Your task to perform on an android device: check android version Image 0: 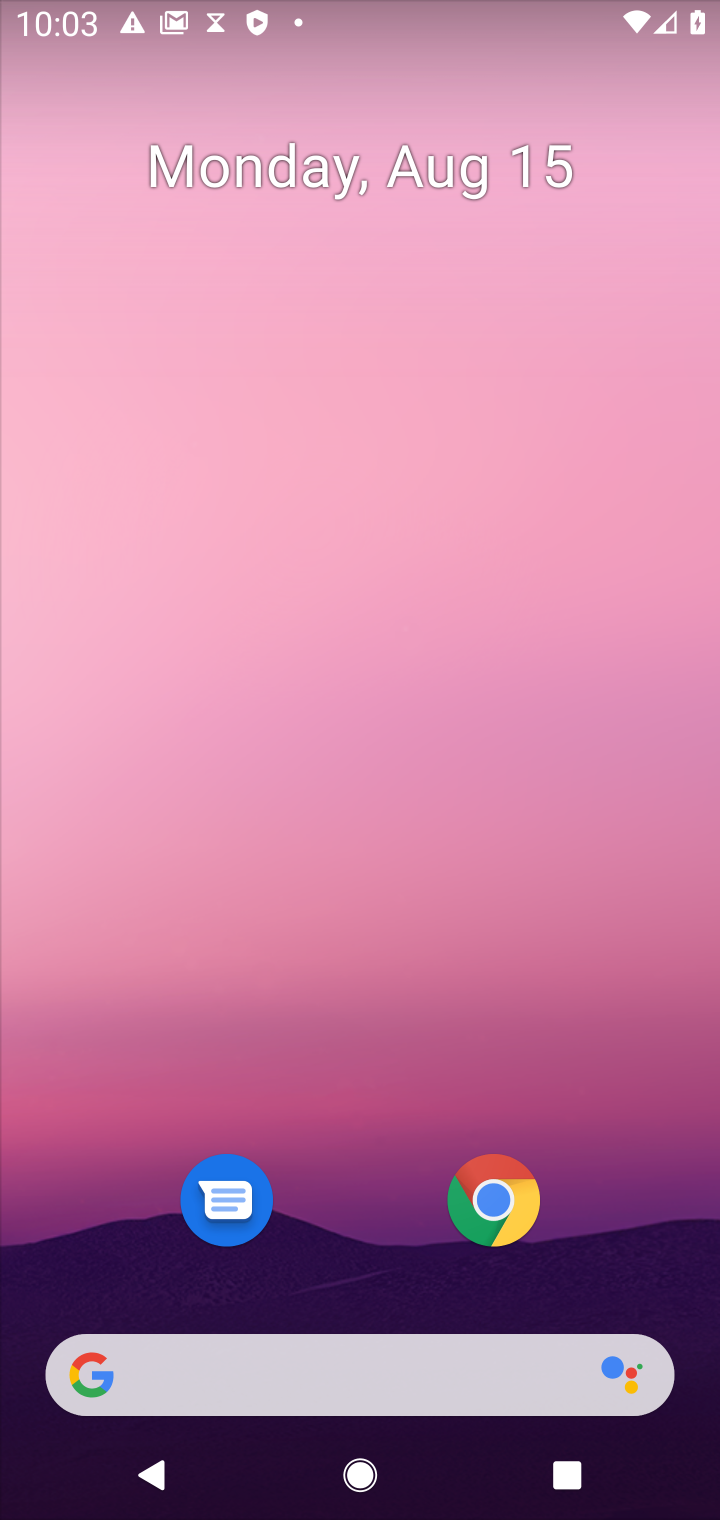
Step 0: drag from (370, 1138) to (433, 273)
Your task to perform on an android device: check android version Image 1: 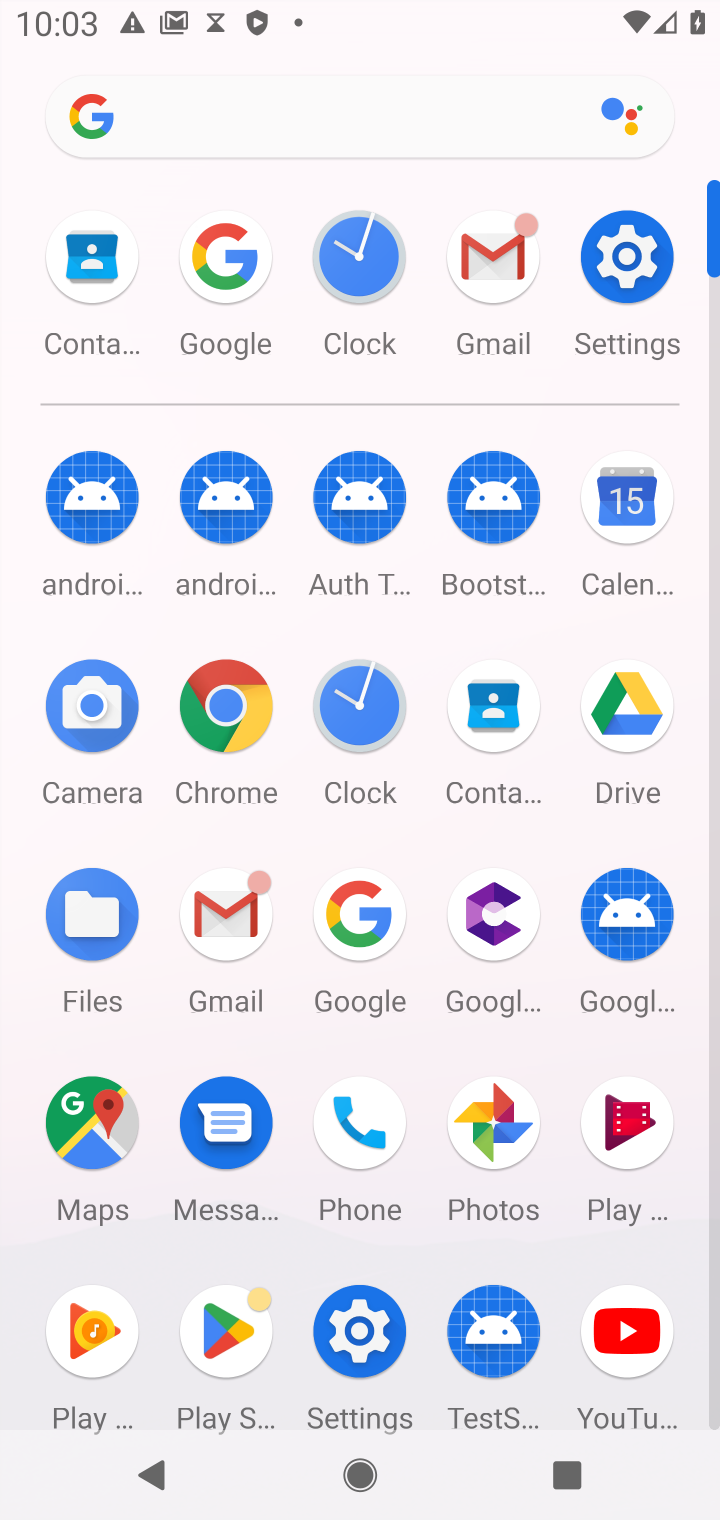
Step 1: click (623, 280)
Your task to perform on an android device: check android version Image 2: 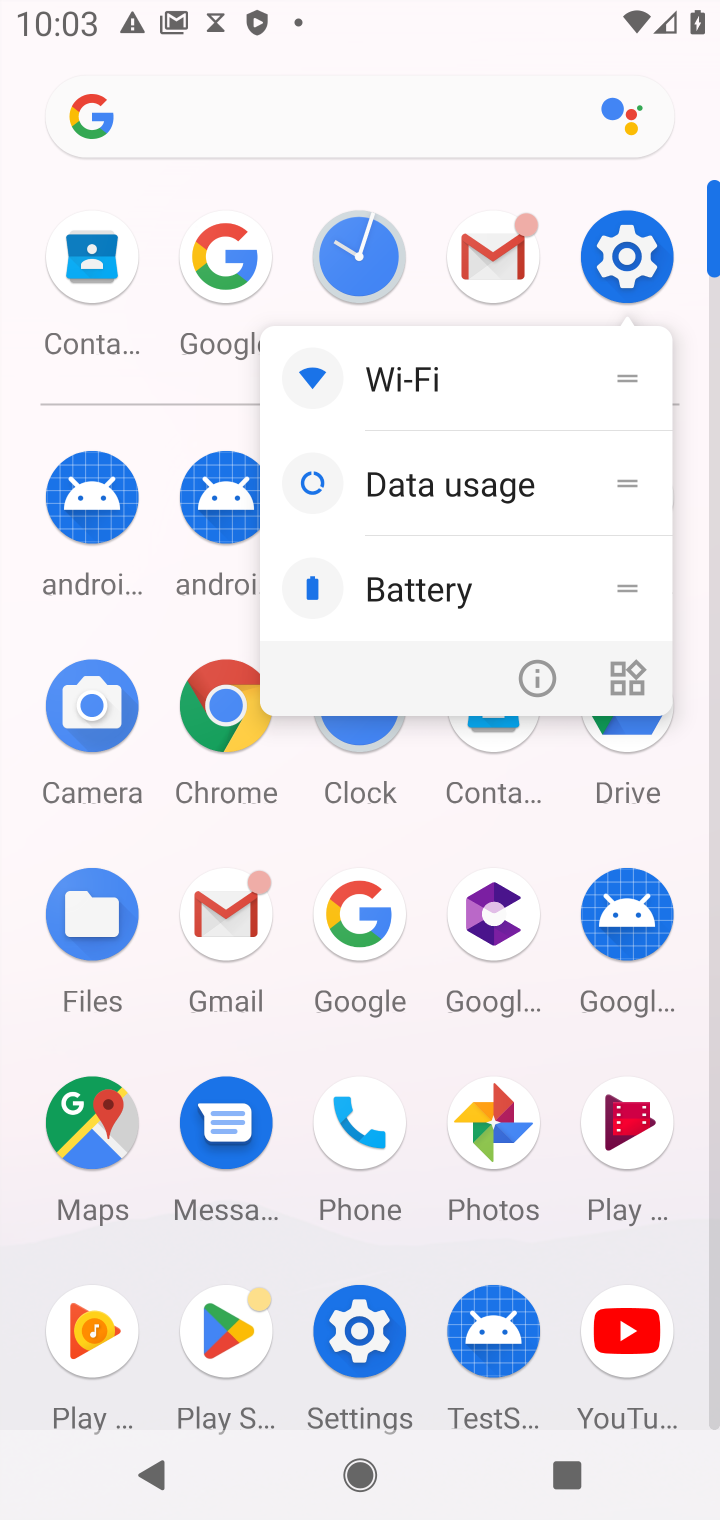
Step 2: click (623, 280)
Your task to perform on an android device: check android version Image 3: 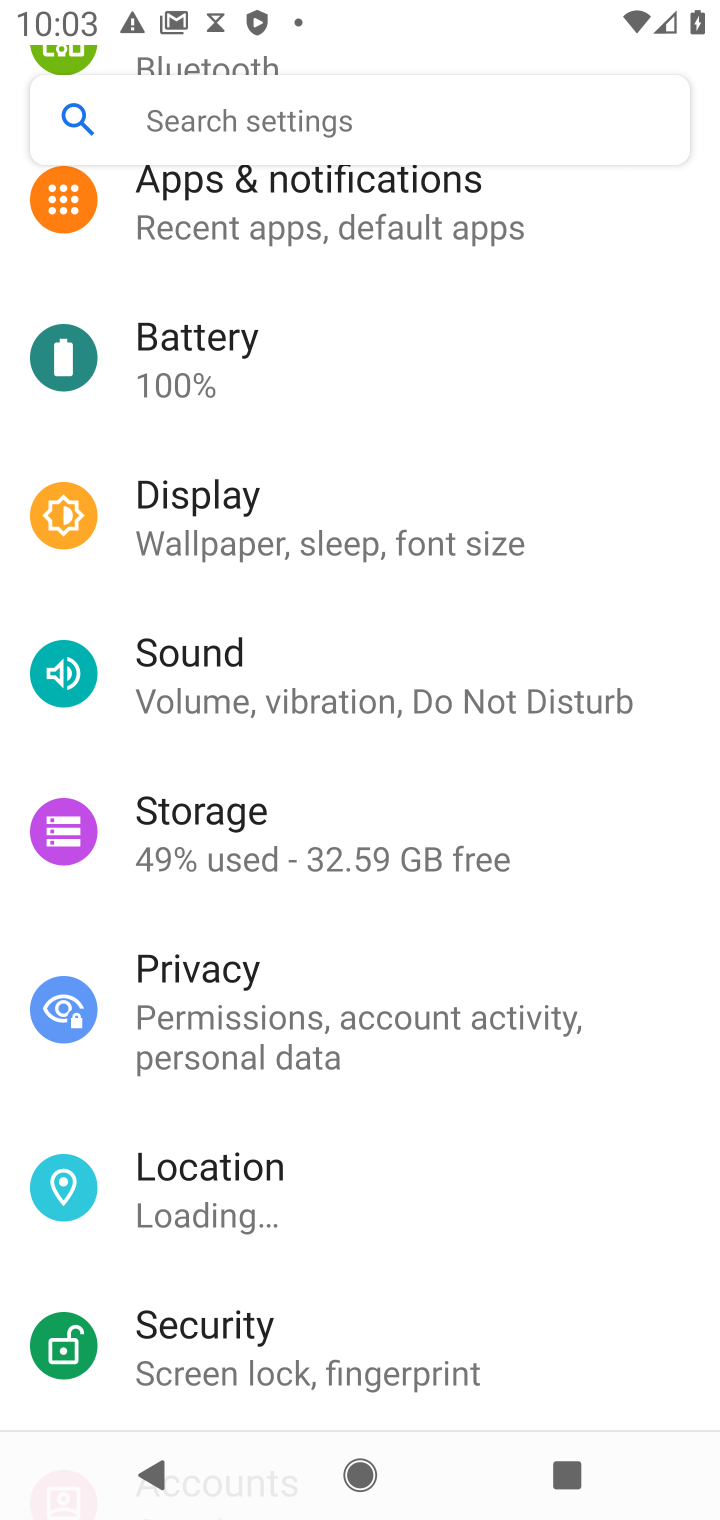
Step 3: drag from (404, 1278) to (359, 153)
Your task to perform on an android device: check android version Image 4: 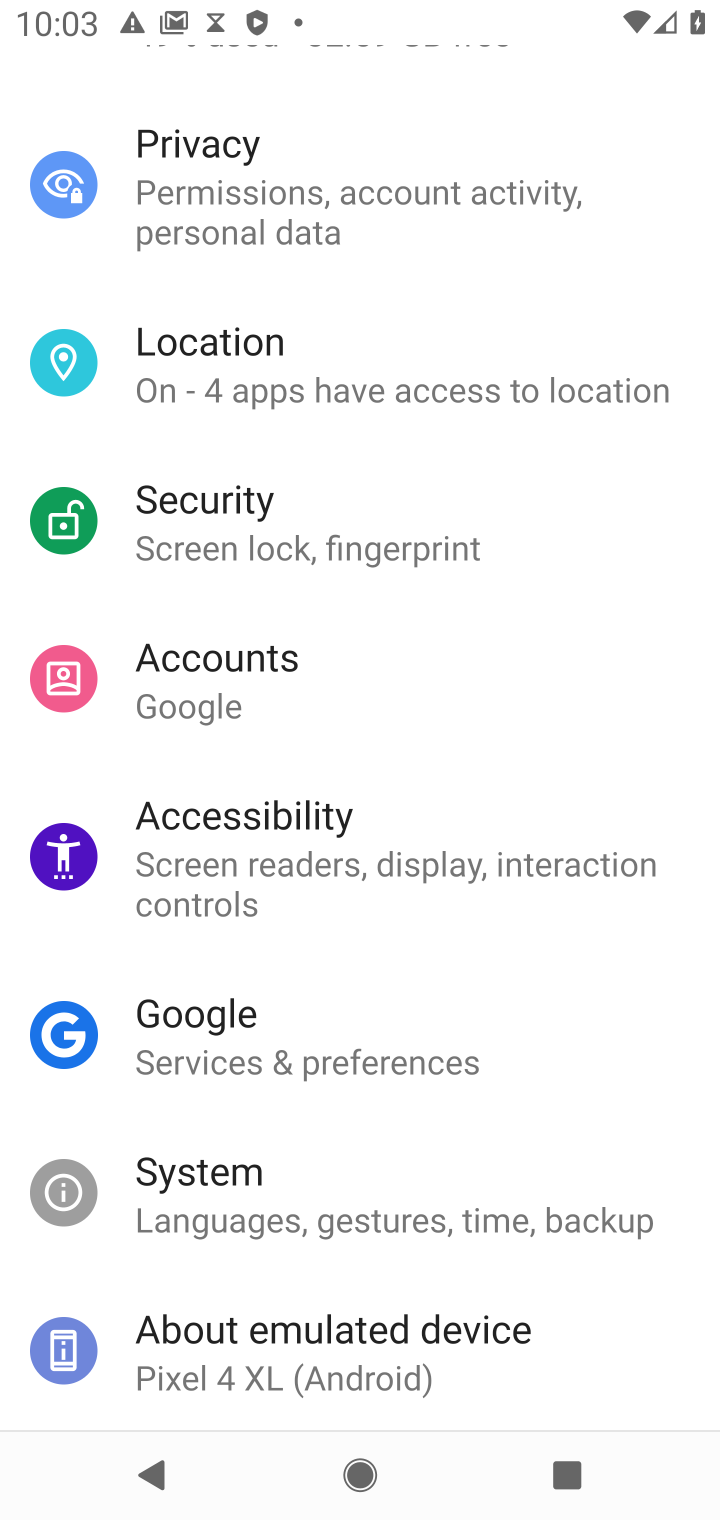
Step 4: drag from (393, 1428) to (397, 913)
Your task to perform on an android device: check android version Image 5: 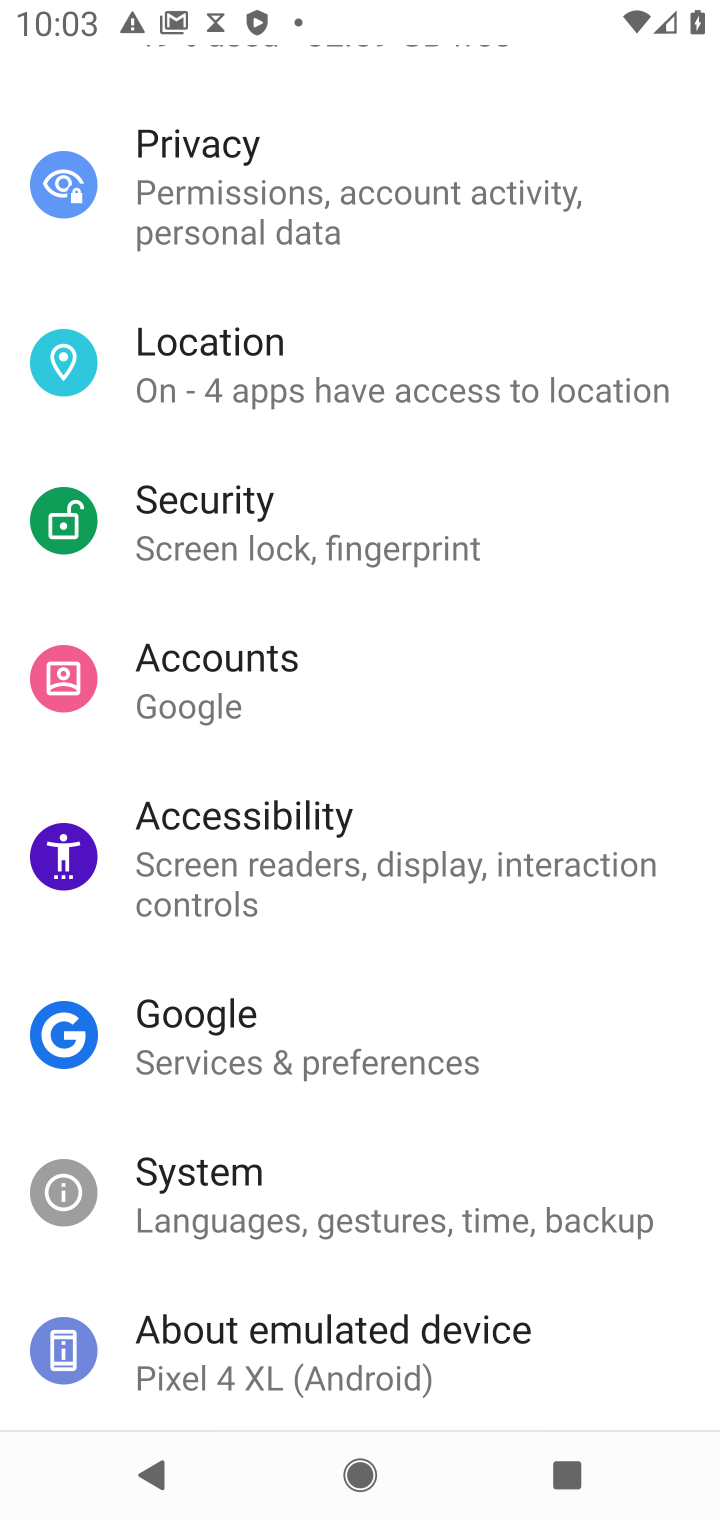
Step 5: click (354, 1319)
Your task to perform on an android device: check android version Image 6: 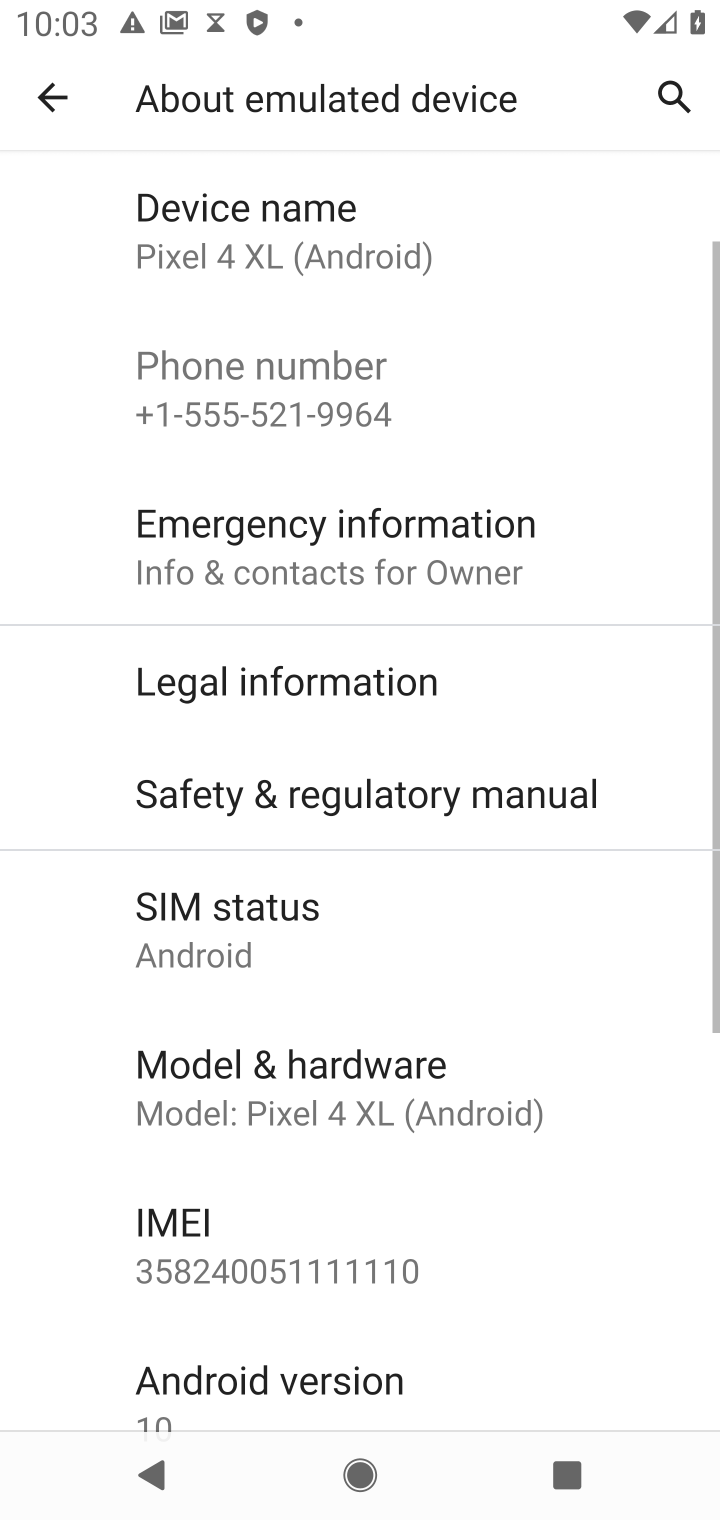
Step 6: drag from (379, 1137) to (403, 414)
Your task to perform on an android device: check android version Image 7: 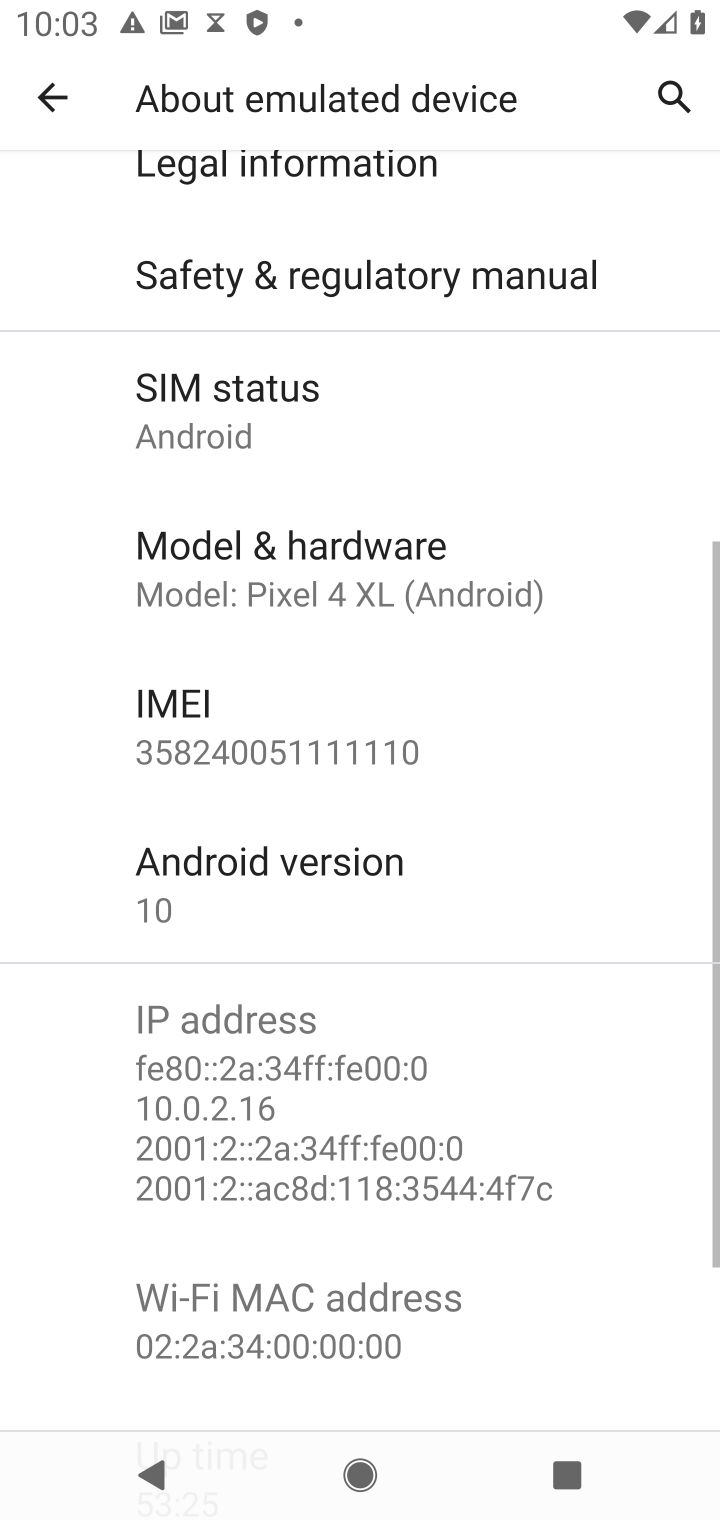
Step 7: click (314, 912)
Your task to perform on an android device: check android version Image 8: 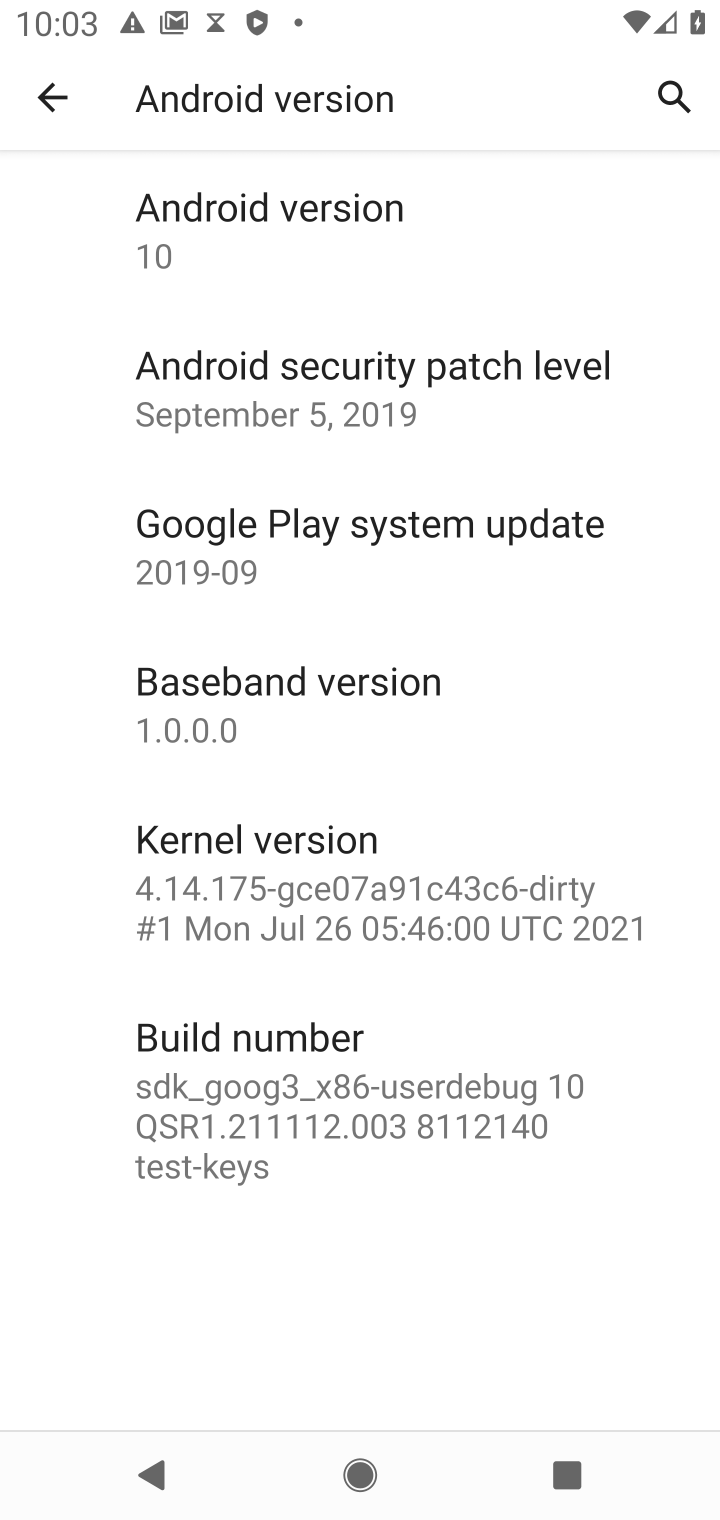
Step 8: click (393, 240)
Your task to perform on an android device: check android version Image 9: 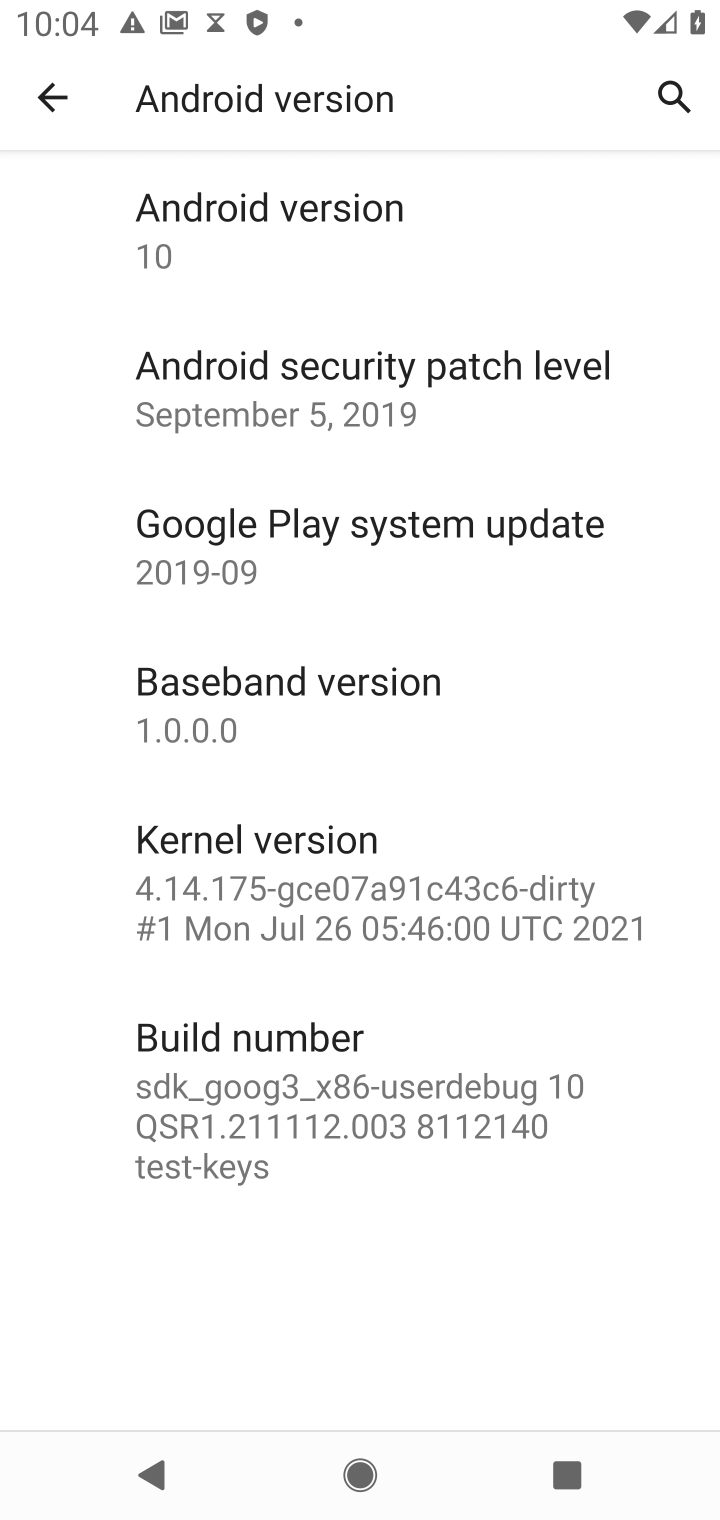
Step 9: task complete